Your task to perform on an android device: Open settings on Google Maps Image 0: 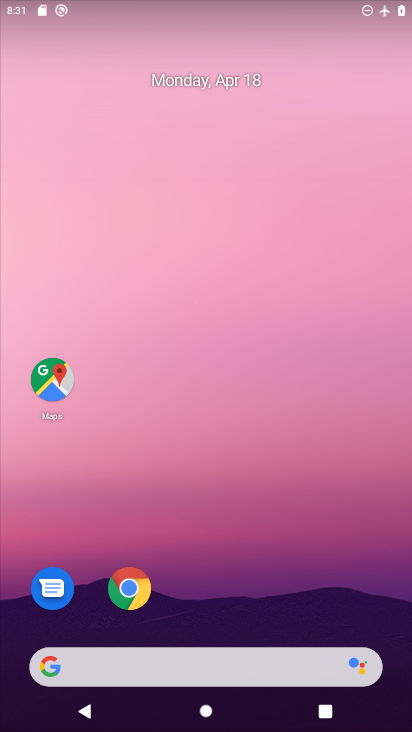
Step 0: click (44, 372)
Your task to perform on an android device: Open settings on Google Maps Image 1: 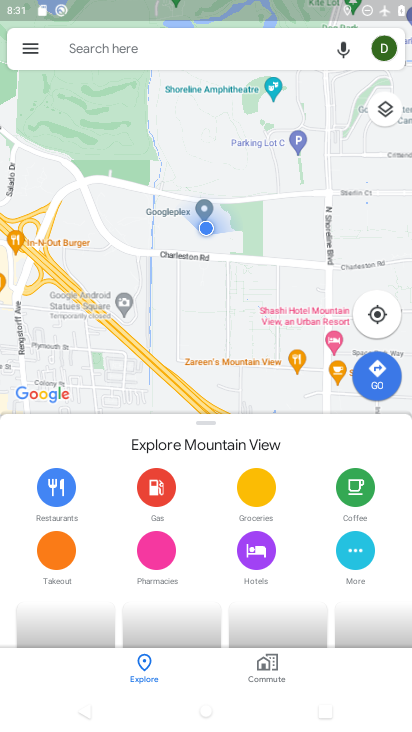
Step 1: click (27, 45)
Your task to perform on an android device: Open settings on Google Maps Image 2: 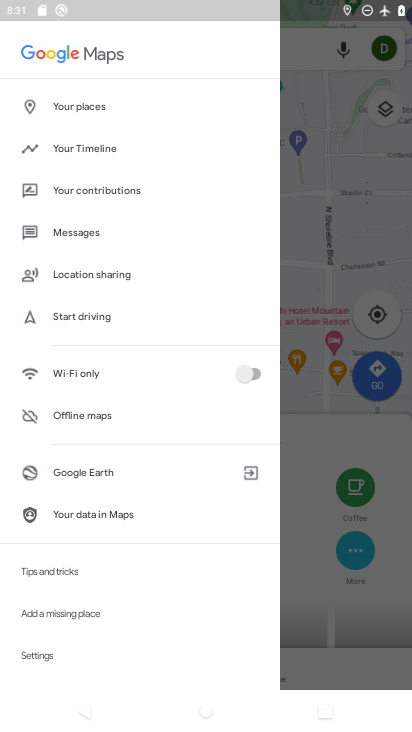
Step 2: click (37, 658)
Your task to perform on an android device: Open settings on Google Maps Image 3: 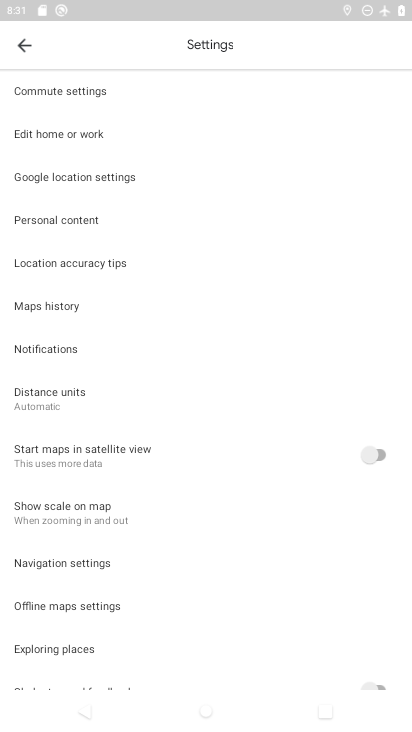
Step 3: task complete